Your task to perform on an android device: change notifications settings Image 0: 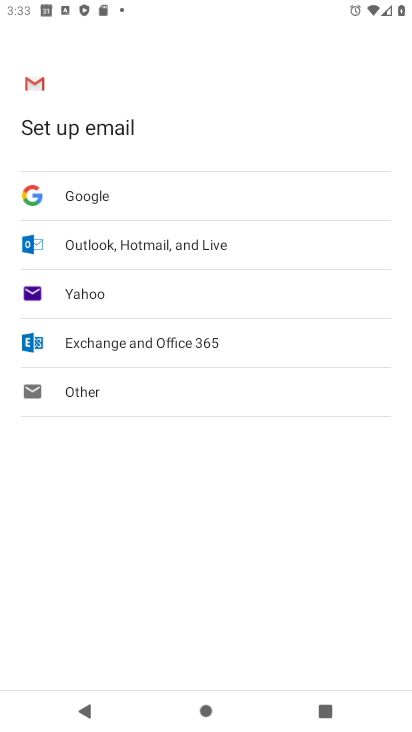
Step 0: press home button
Your task to perform on an android device: change notifications settings Image 1: 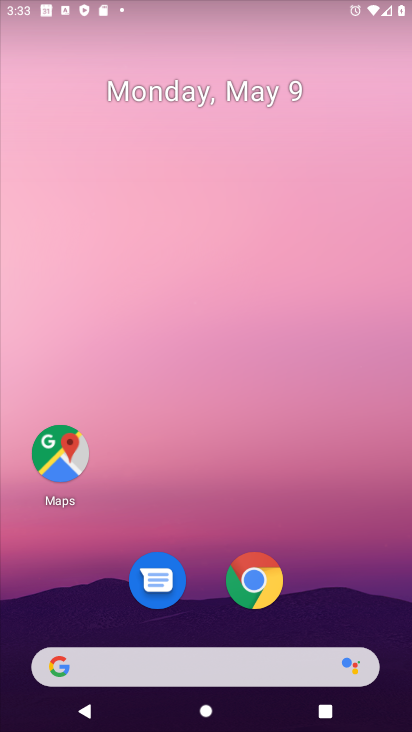
Step 1: drag from (337, 486) to (263, 24)
Your task to perform on an android device: change notifications settings Image 2: 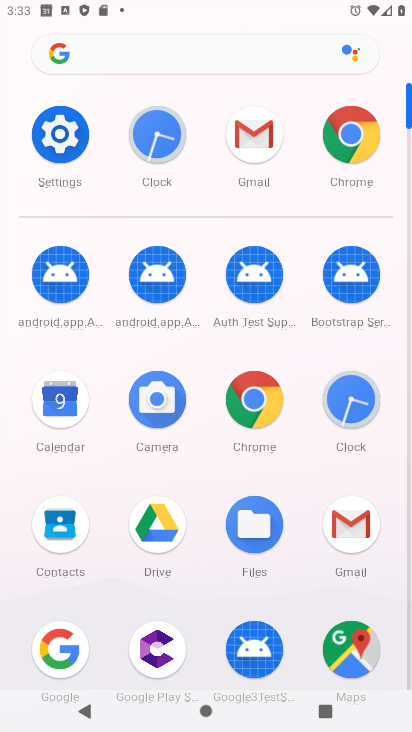
Step 2: click (55, 140)
Your task to perform on an android device: change notifications settings Image 3: 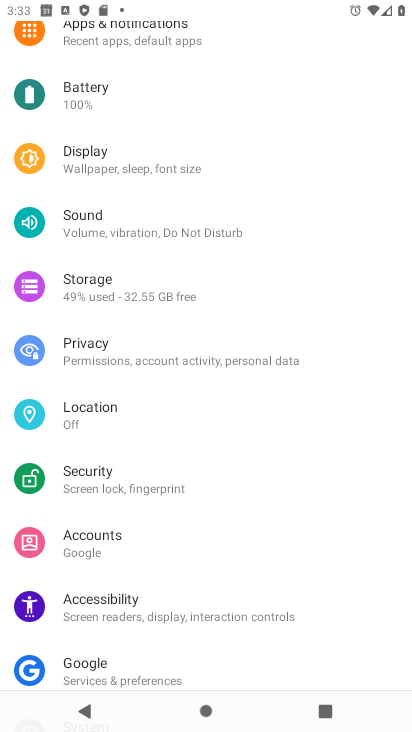
Step 3: drag from (227, 100) to (238, 638)
Your task to perform on an android device: change notifications settings Image 4: 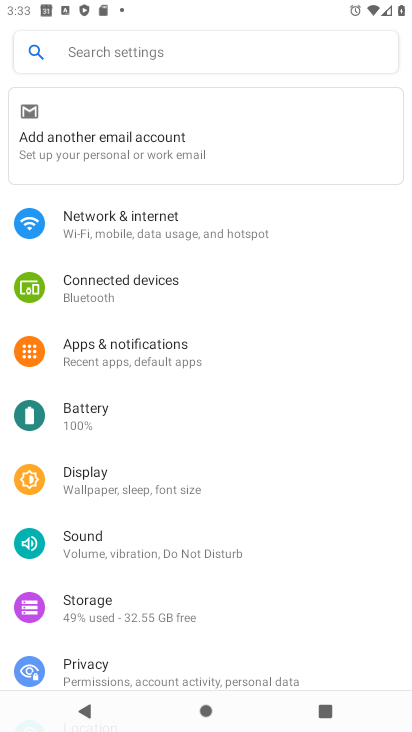
Step 4: click (147, 366)
Your task to perform on an android device: change notifications settings Image 5: 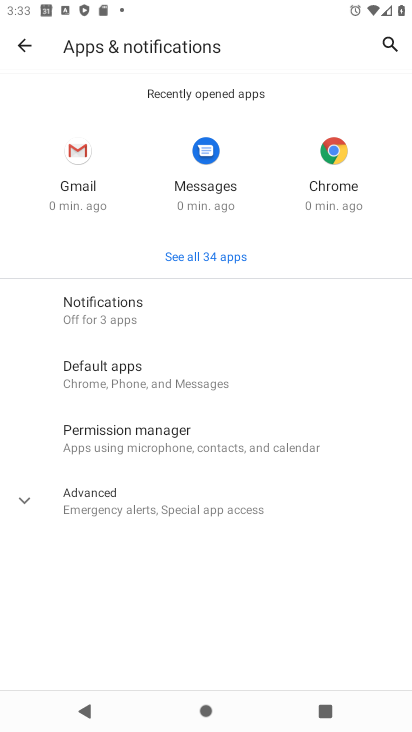
Step 5: click (145, 312)
Your task to perform on an android device: change notifications settings Image 6: 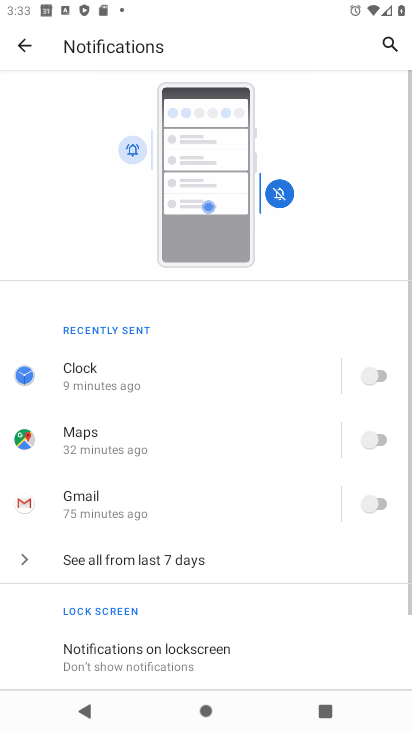
Step 6: click (371, 382)
Your task to perform on an android device: change notifications settings Image 7: 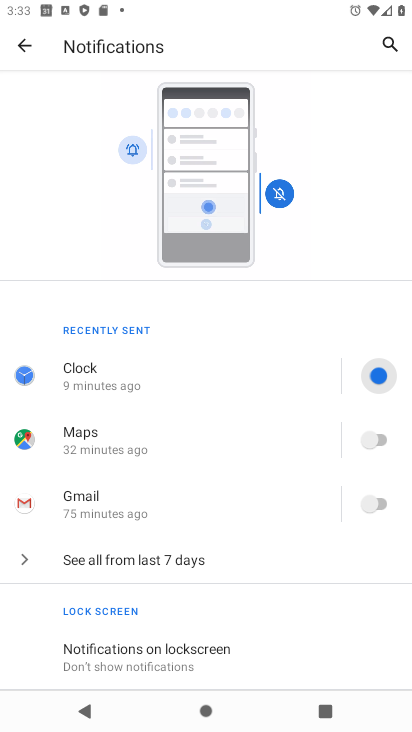
Step 7: click (368, 437)
Your task to perform on an android device: change notifications settings Image 8: 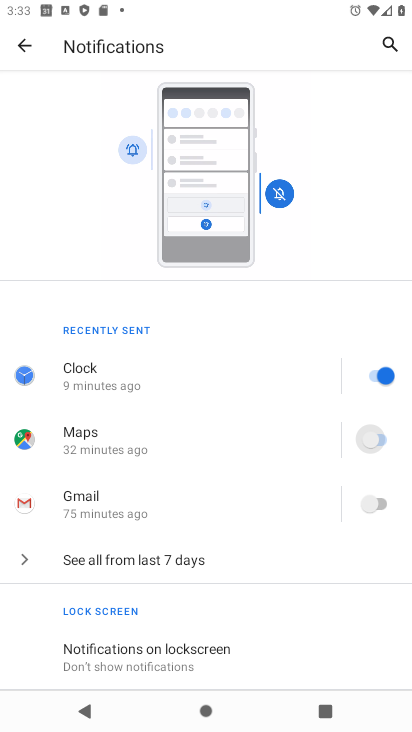
Step 8: click (369, 504)
Your task to perform on an android device: change notifications settings Image 9: 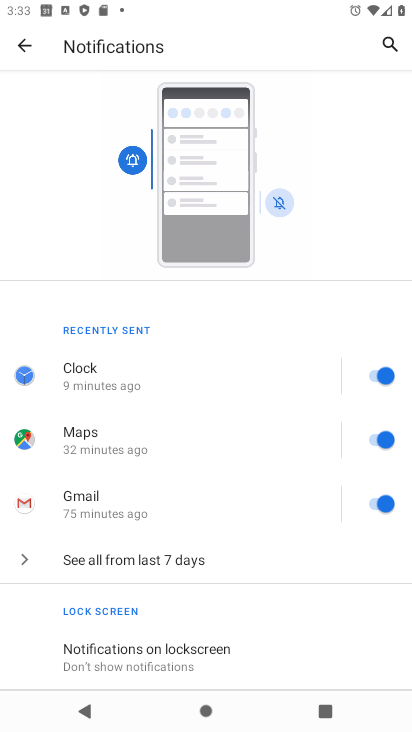
Step 9: task complete